Your task to perform on an android device: delete the emails in spam in the gmail app Image 0: 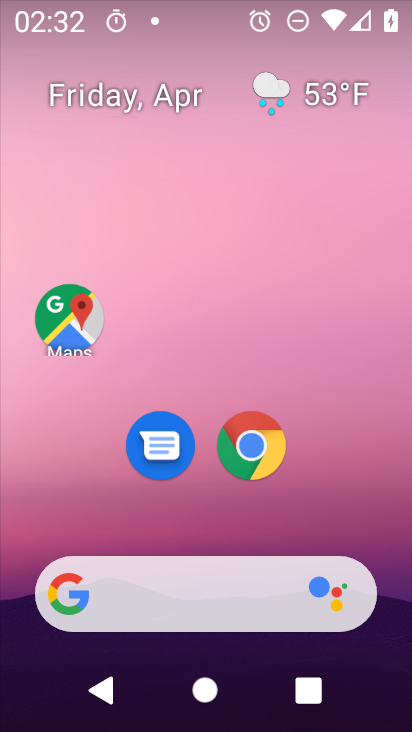
Step 0: drag from (372, 513) to (368, 162)
Your task to perform on an android device: delete the emails in spam in the gmail app Image 1: 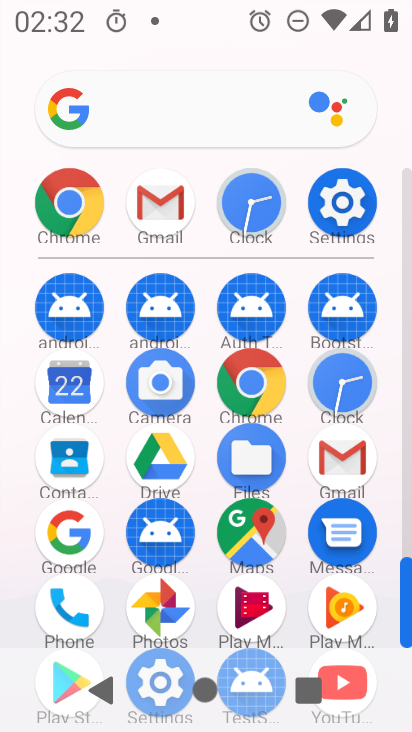
Step 1: click (352, 462)
Your task to perform on an android device: delete the emails in spam in the gmail app Image 2: 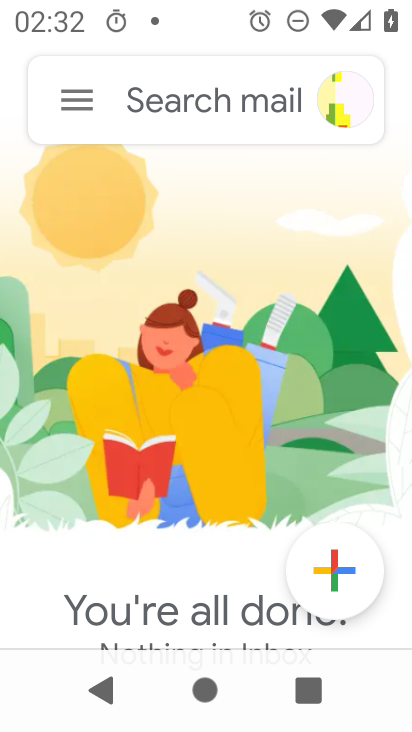
Step 2: click (86, 102)
Your task to perform on an android device: delete the emails in spam in the gmail app Image 3: 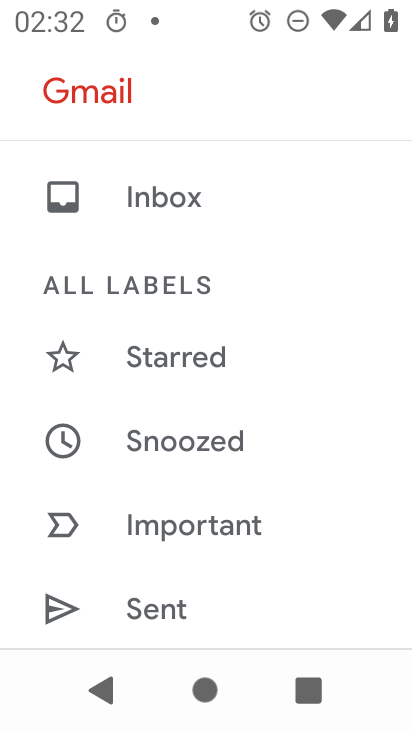
Step 3: drag from (308, 467) to (315, 315)
Your task to perform on an android device: delete the emails in spam in the gmail app Image 4: 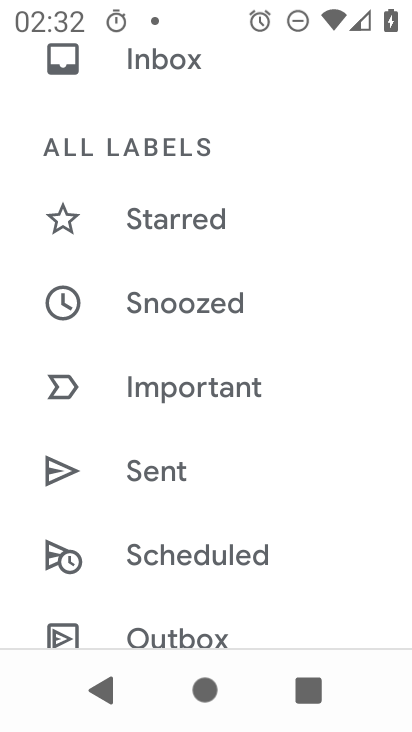
Step 4: drag from (314, 540) to (316, 324)
Your task to perform on an android device: delete the emails in spam in the gmail app Image 5: 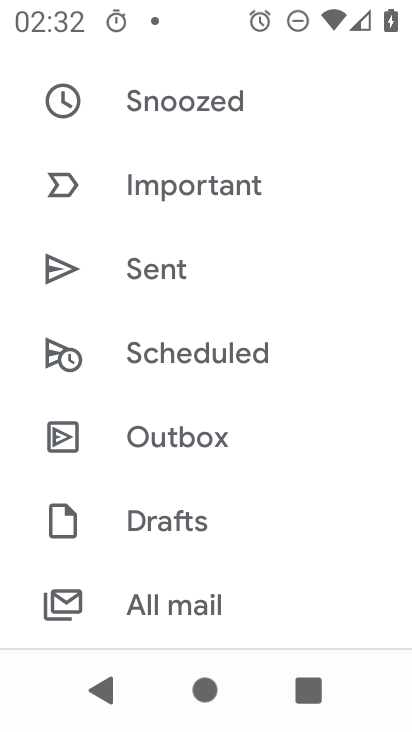
Step 5: drag from (335, 448) to (332, 323)
Your task to perform on an android device: delete the emails in spam in the gmail app Image 6: 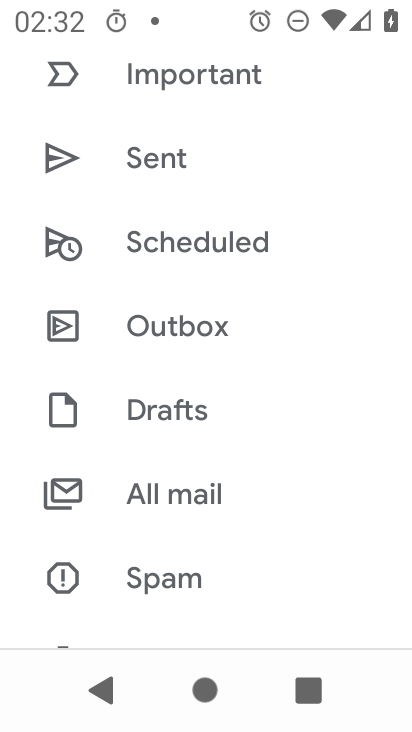
Step 6: drag from (334, 546) to (328, 345)
Your task to perform on an android device: delete the emails in spam in the gmail app Image 7: 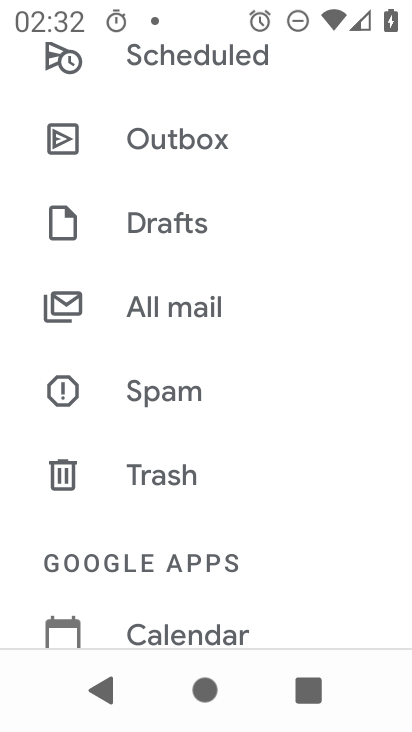
Step 7: drag from (317, 566) to (312, 307)
Your task to perform on an android device: delete the emails in spam in the gmail app Image 8: 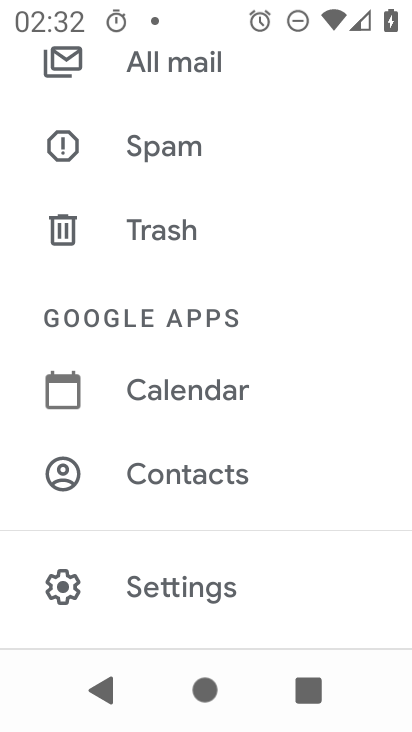
Step 8: drag from (319, 554) to (318, 378)
Your task to perform on an android device: delete the emails in spam in the gmail app Image 9: 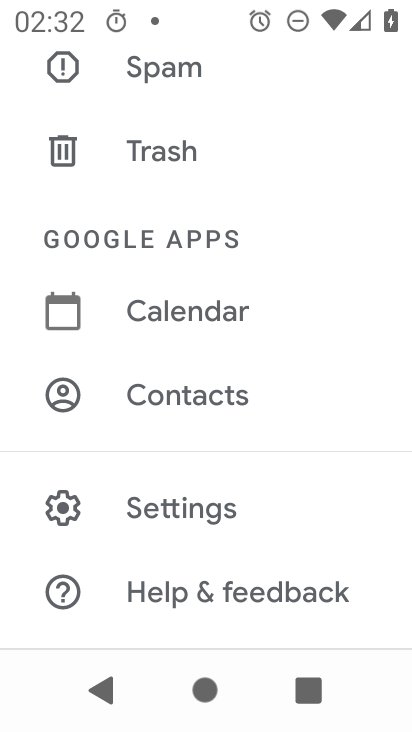
Step 9: drag from (327, 514) to (328, 352)
Your task to perform on an android device: delete the emails in spam in the gmail app Image 10: 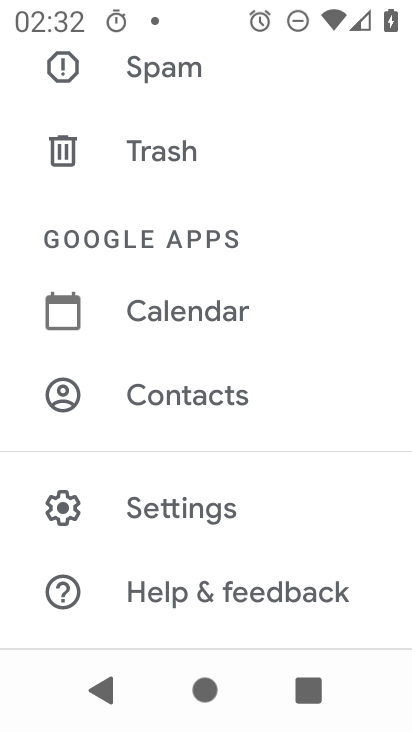
Step 10: drag from (339, 277) to (343, 497)
Your task to perform on an android device: delete the emails in spam in the gmail app Image 11: 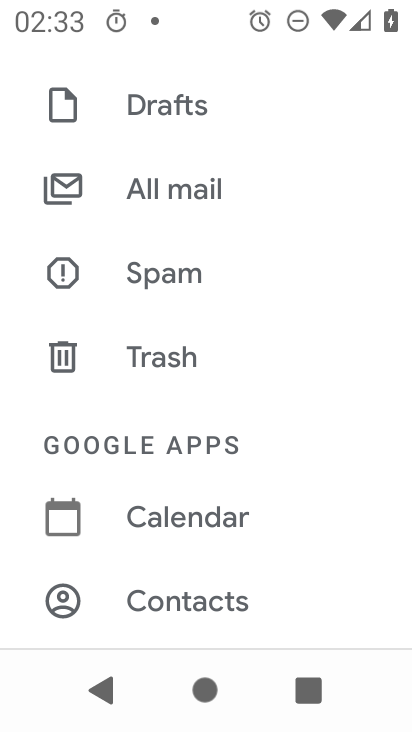
Step 11: click (210, 287)
Your task to perform on an android device: delete the emails in spam in the gmail app Image 12: 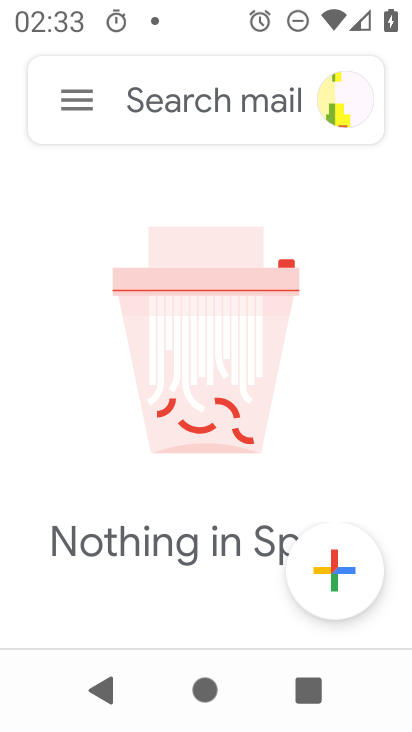
Step 12: task complete